Your task to perform on an android device: Show me the alarms in the clock app Image 0: 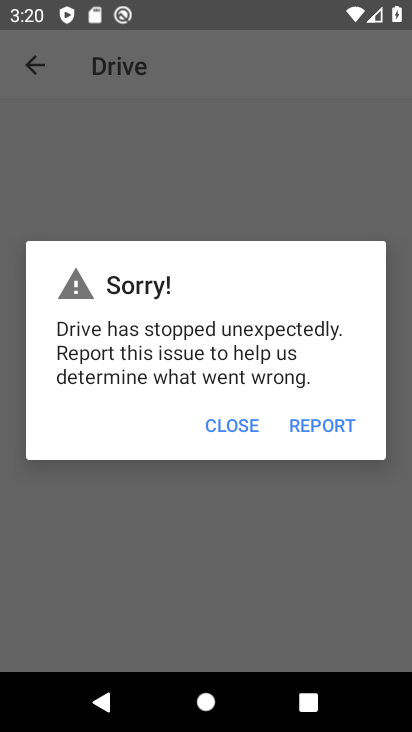
Step 0: press home button
Your task to perform on an android device: Show me the alarms in the clock app Image 1: 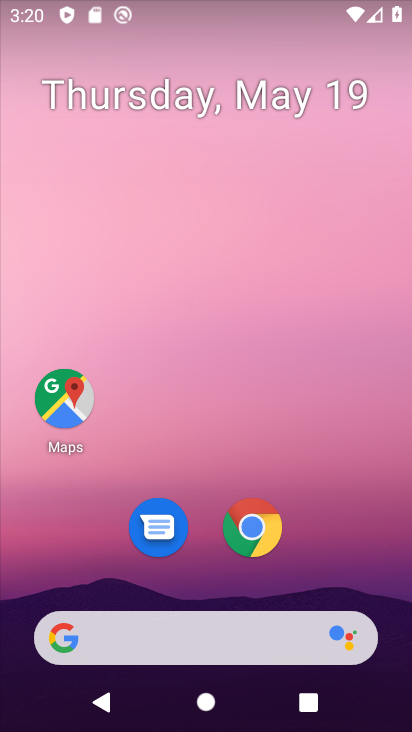
Step 1: drag from (150, 423) to (195, 94)
Your task to perform on an android device: Show me the alarms in the clock app Image 2: 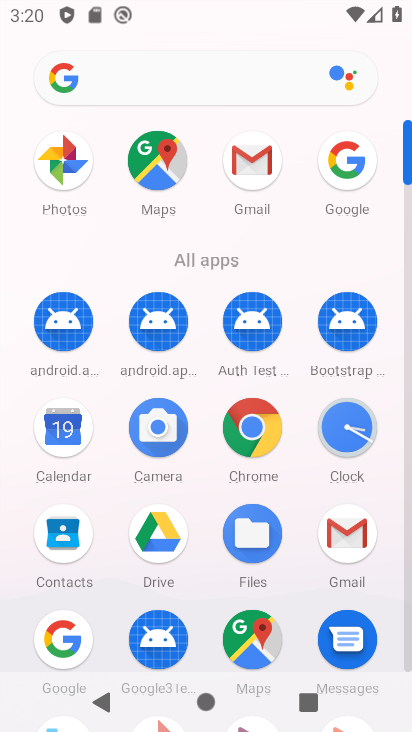
Step 2: click (343, 433)
Your task to perform on an android device: Show me the alarms in the clock app Image 3: 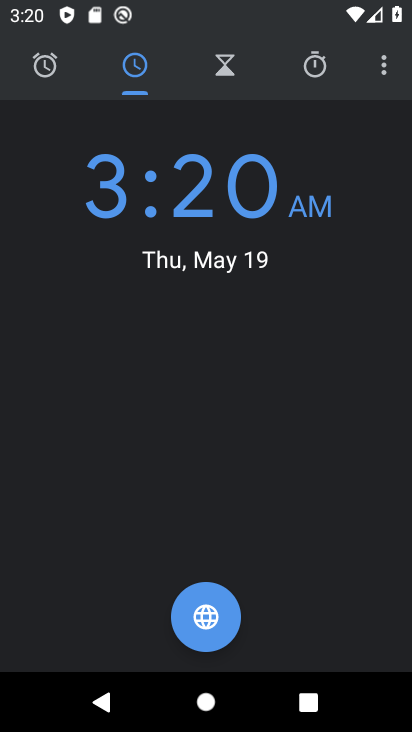
Step 3: click (39, 65)
Your task to perform on an android device: Show me the alarms in the clock app Image 4: 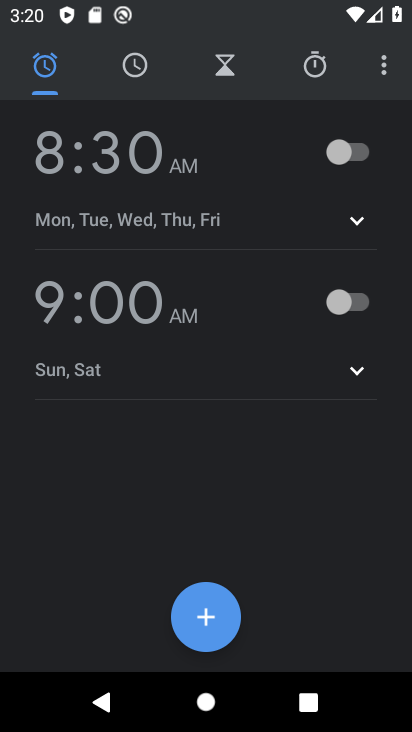
Step 4: click (202, 628)
Your task to perform on an android device: Show me the alarms in the clock app Image 5: 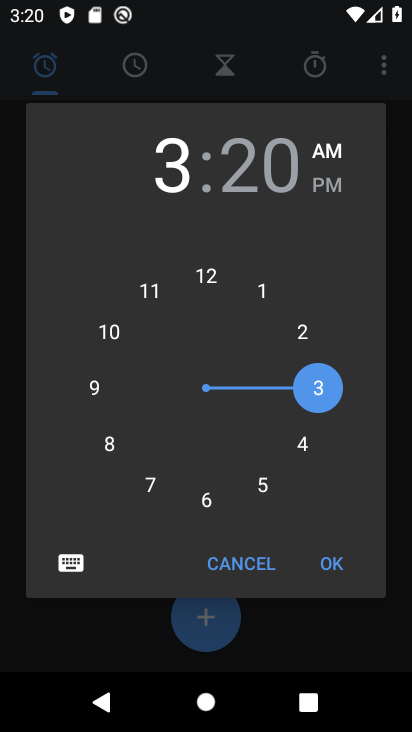
Step 5: click (332, 563)
Your task to perform on an android device: Show me the alarms in the clock app Image 6: 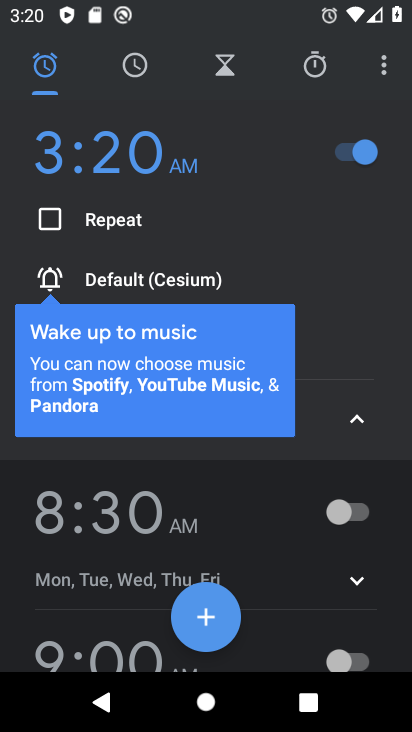
Step 6: task complete